Your task to perform on an android device: Open Android settings Image 0: 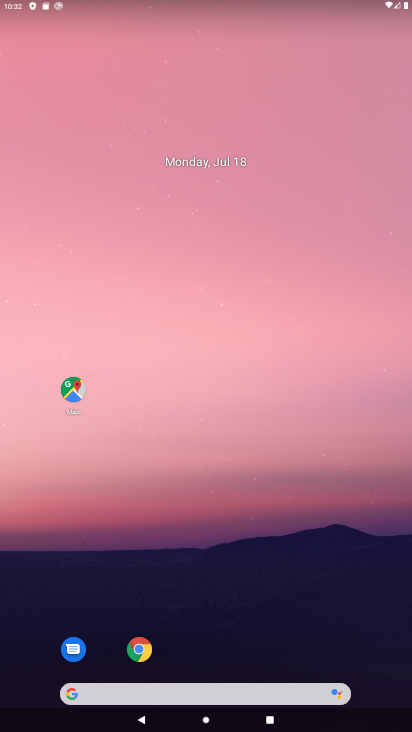
Step 0: drag from (257, 585) to (210, 45)
Your task to perform on an android device: Open Android settings Image 1: 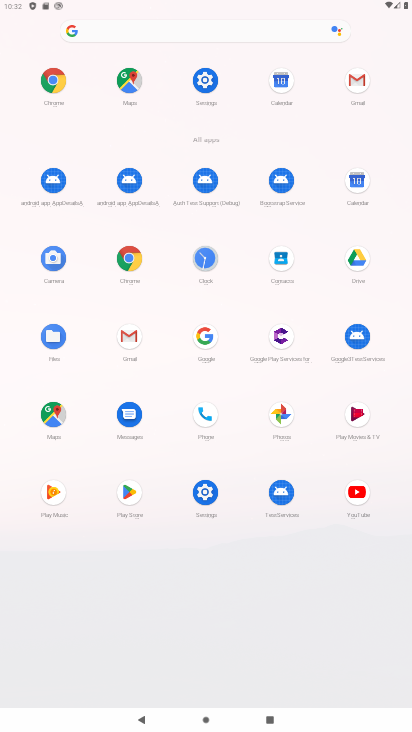
Step 1: click (203, 82)
Your task to perform on an android device: Open Android settings Image 2: 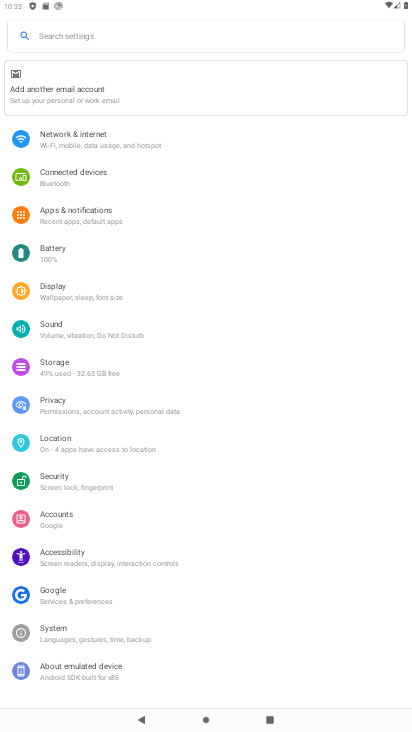
Step 2: task complete